Your task to perform on an android device: Go to Google maps Image 0: 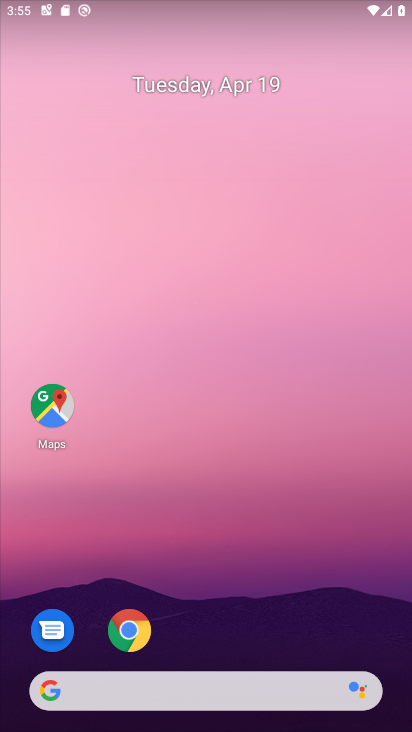
Step 0: click (53, 419)
Your task to perform on an android device: Go to Google maps Image 1: 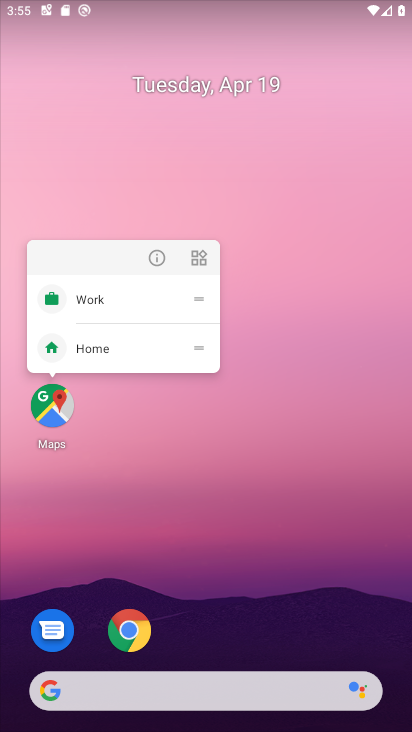
Step 1: click (53, 418)
Your task to perform on an android device: Go to Google maps Image 2: 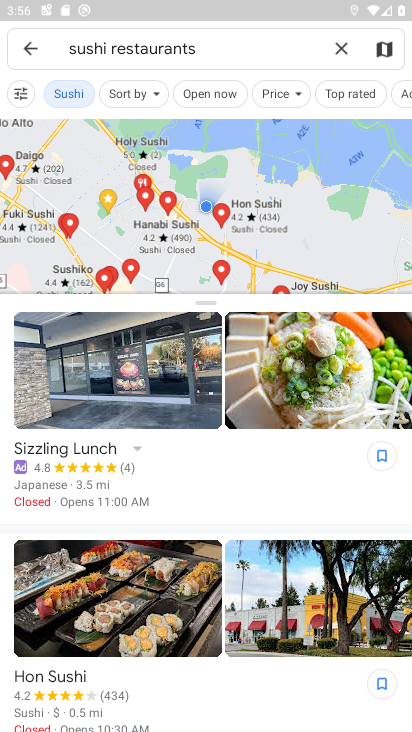
Step 2: task complete